Your task to perform on an android device: Search for pizza restaurants on Maps Image 0: 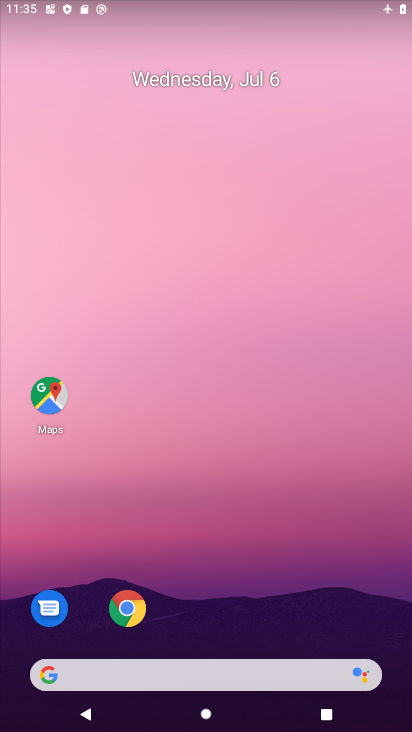
Step 0: drag from (190, 662) to (207, 257)
Your task to perform on an android device: Search for pizza restaurants on Maps Image 1: 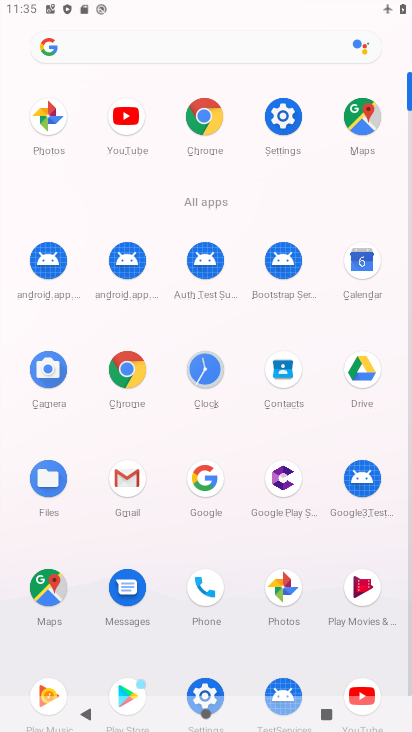
Step 1: click (52, 579)
Your task to perform on an android device: Search for pizza restaurants on Maps Image 2: 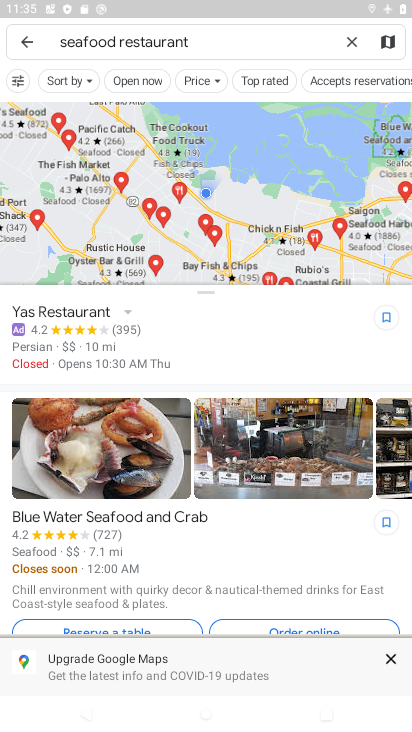
Step 2: click (355, 41)
Your task to perform on an android device: Search for pizza restaurants on Maps Image 3: 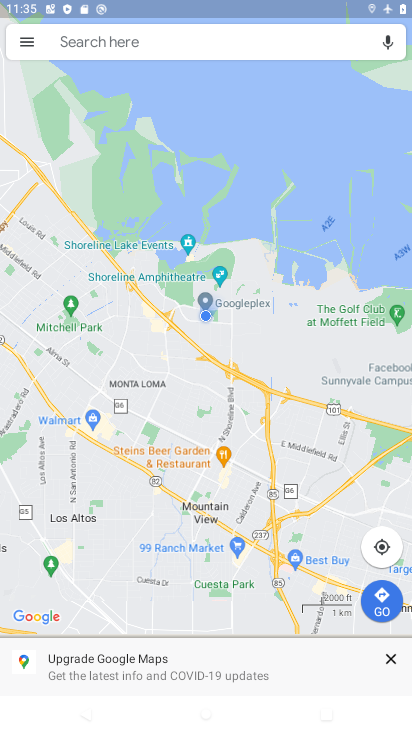
Step 3: click (148, 33)
Your task to perform on an android device: Search for pizza restaurants on Maps Image 4: 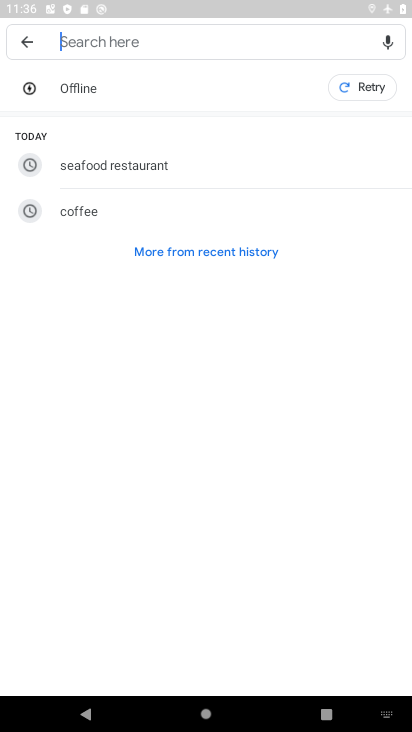
Step 4: type "pizza restaurants "
Your task to perform on an android device: Search for pizza restaurants on Maps Image 5: 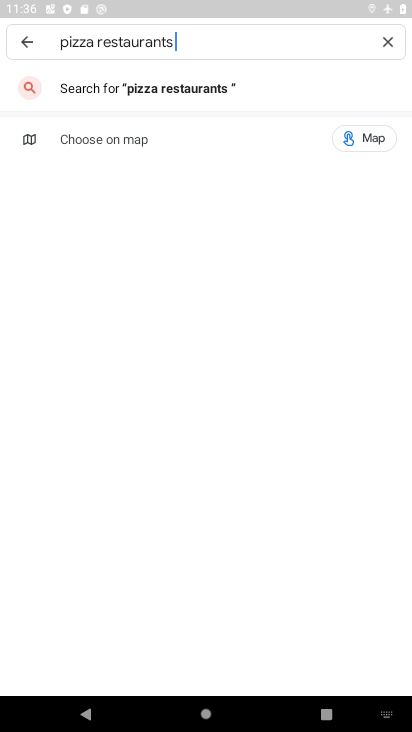
Step 5: click (167, 90)
Your task to perform on an android device: Search for pizza restaurants on Maps Image 6: 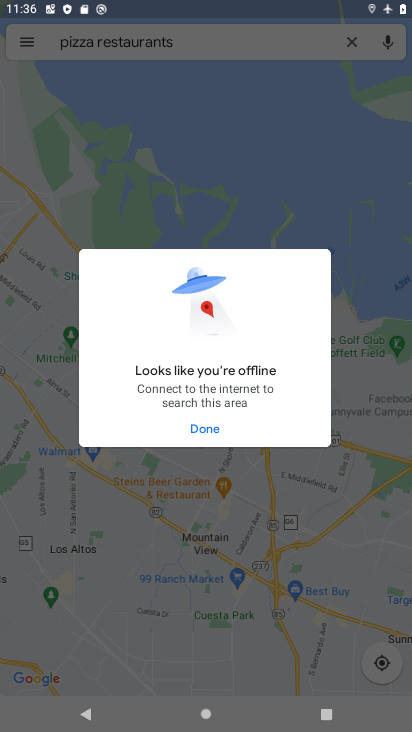
Step 6: task complete